Your task to perform on an android device: toggle notification dots Image 0: 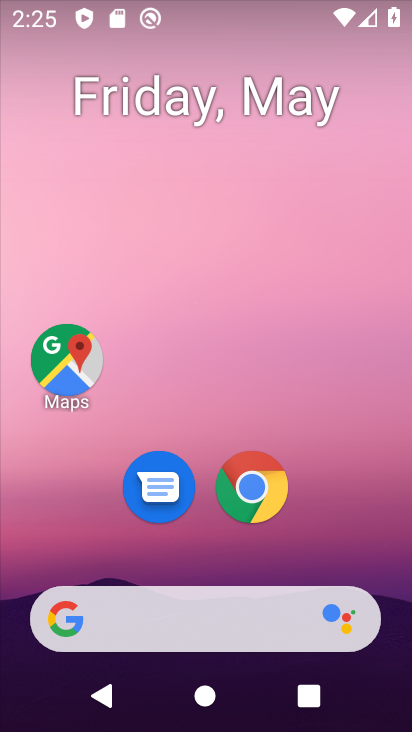
Step 0: drag from (222, 517) to (269, 90)
Your task to perform on an android device: toggle notification dots Image 1: 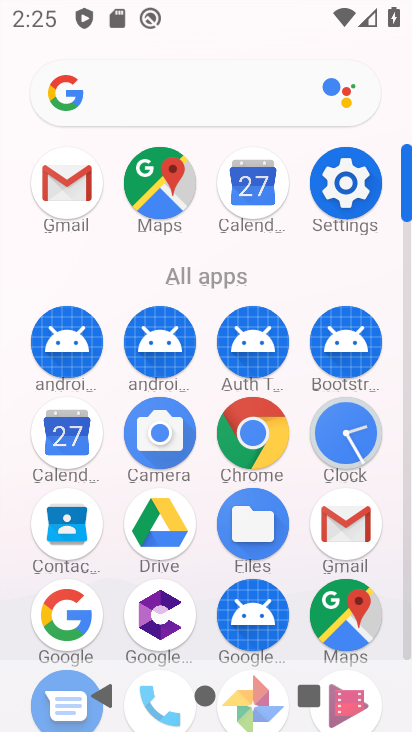
Step 1: click (333, 183)
Your task to perform on an android device: toggle notification dots Image 2: 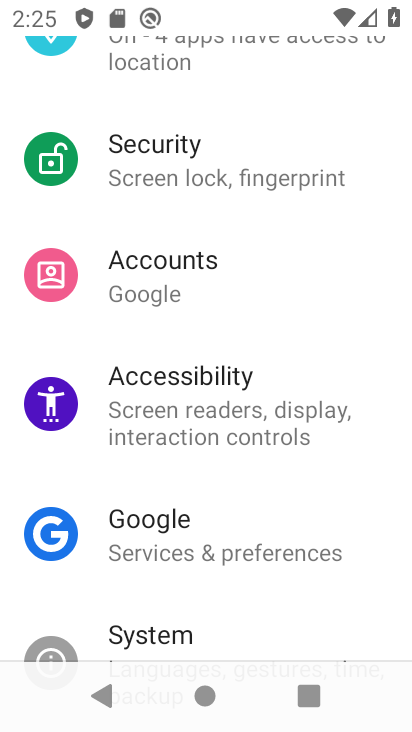
Step 2: drag from (204, 215) to (186, 558)
Your task to perform on an android device: toggle notification dots Image 3: 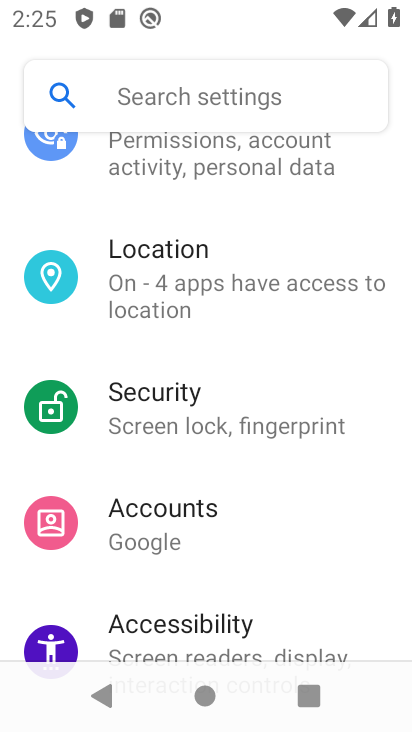
Step 3: drag from (189, 155) to (184, 616)
Your task to perform on an android device: toggle notification dots Image 4: 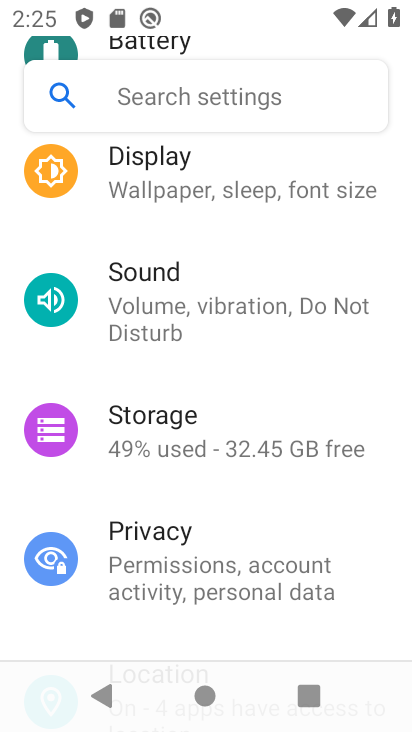
Step 4: drag from (219, 215) to (192, 706)
Your task to perform on an android device: toggle notification dots Image 5: 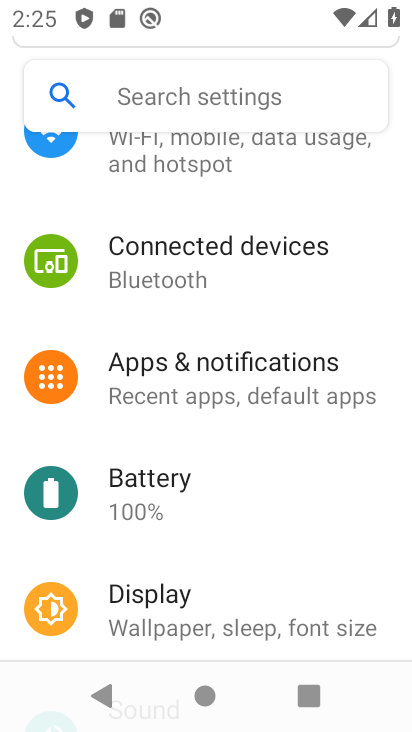
Step 5: click (212, 369)
Your task to perform on an android device: toggle notification dots Image 6: 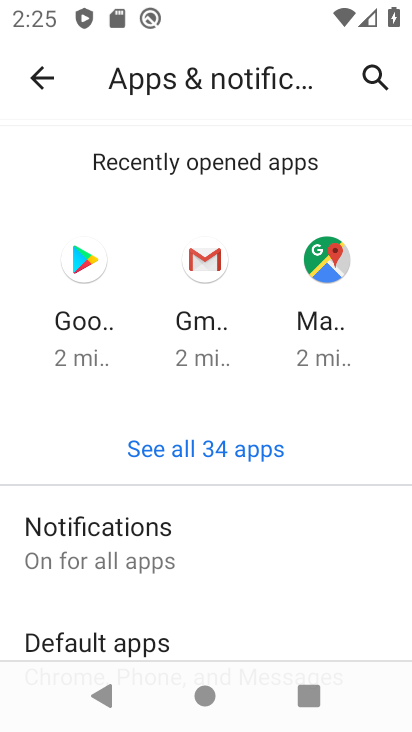
Step 6: click (119, 546)
Your task to perform on an android device: toggle notification dots Image 7: 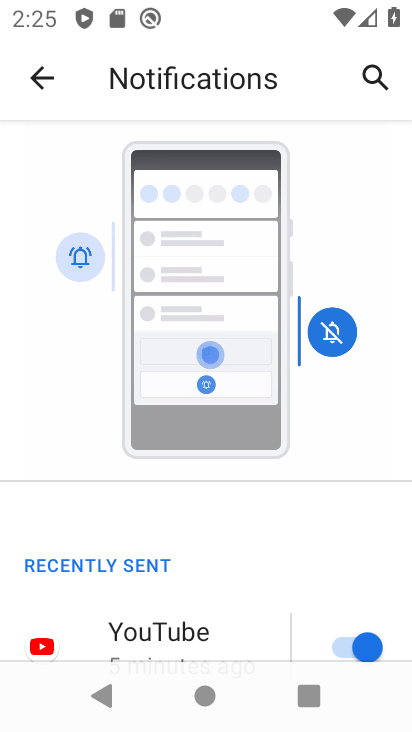
Step 7: drag from (167, 620) to (296, 98)
Your task to perform on an android device: toggle notification dots Image 8: 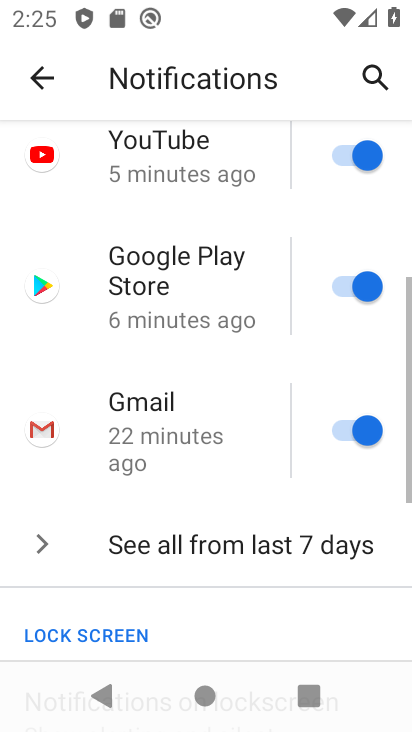
Step 8: drag from (211, 584) to (278, 27)
Your task to perform on an android device: toggle notification dots Image 9: 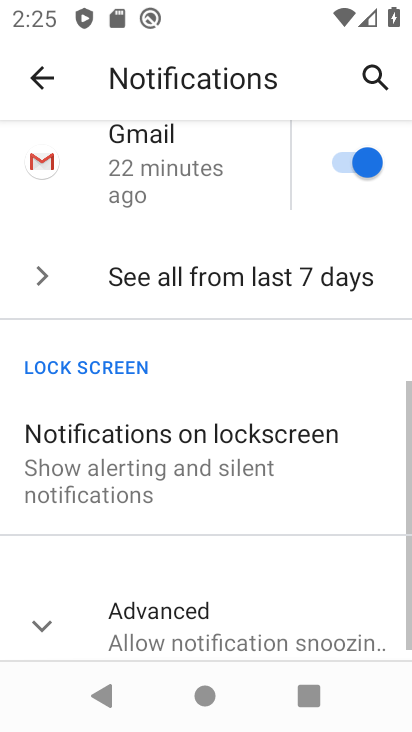
Step 9: click (207, 581)
Your task to perform on an android device: toggle notification dots Image 10: 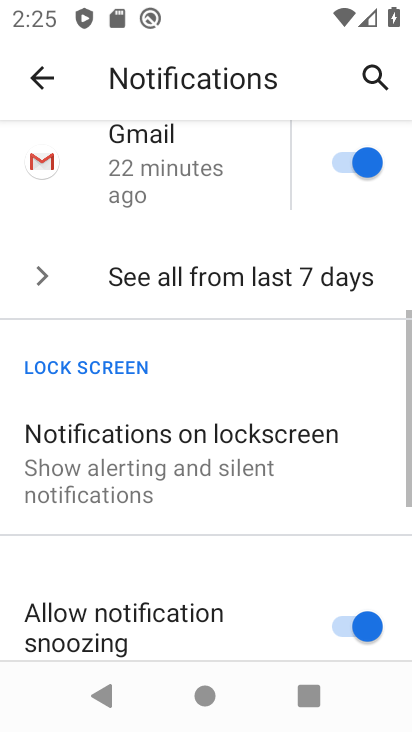
Step 10: drag from (207, 565) to (267, 74)
Your task to perform on an android device: toggle notification dots Image 11: 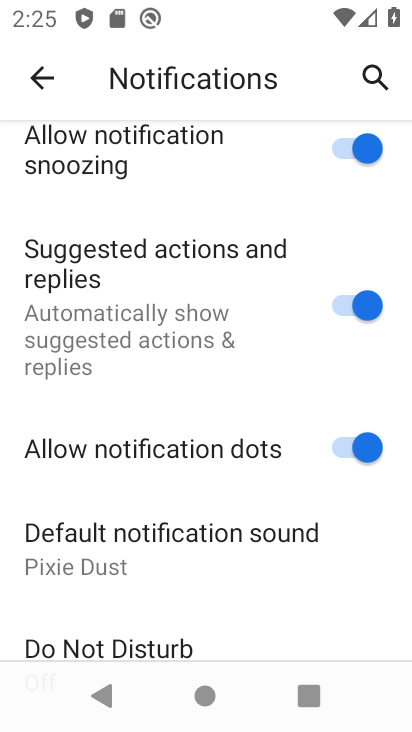
Step 11: click (361, 451)
Your task to perform on an android device: toggle notification dots Image 12: 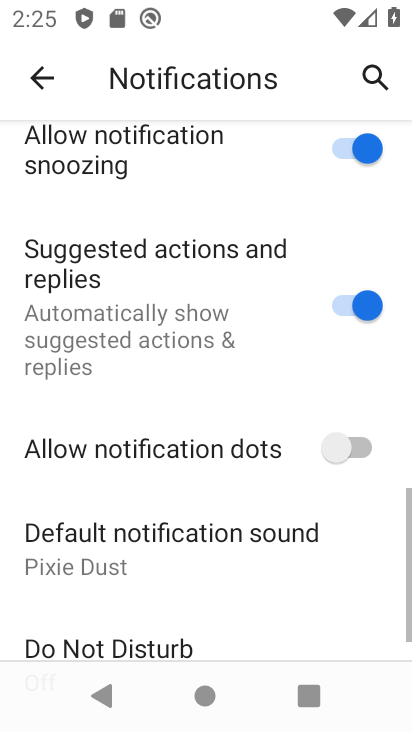
Step 12: task complete